Your task to perform on an android device: Open wifi settings Image 0: 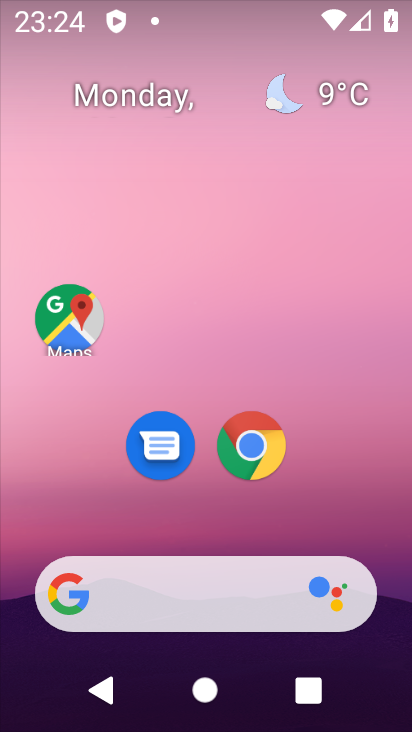
Step 0: drag from (269, 568) to (285, 8)
Your task to perform on an android device: Open wifi settings Image 1: 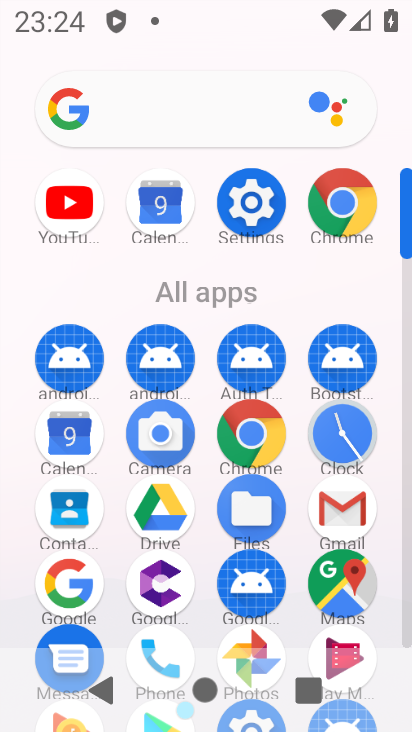
Step 1: click (263, 208)
Your task to perform on an android device: Open wifi settings Image 2: 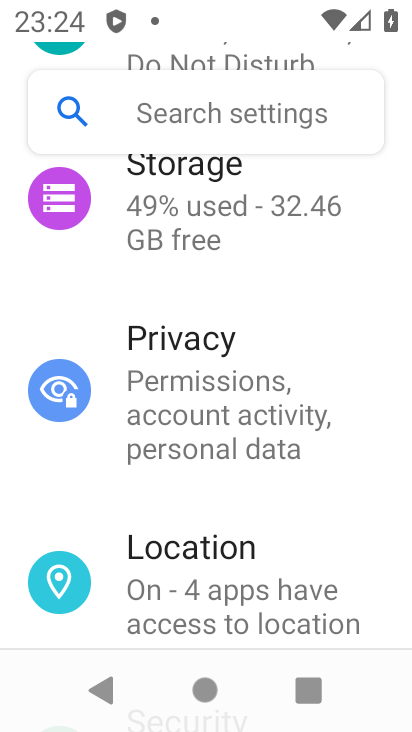
Step 2: drag from (268, 238) to (409, 725)
Your task to perform on an android device: Open wifi settings Image 3: 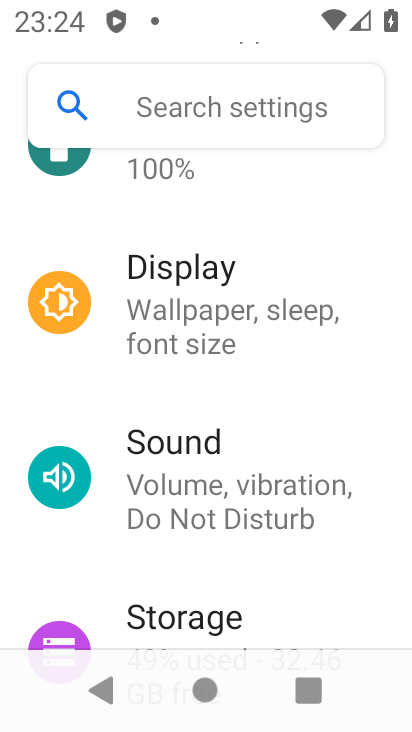
Step 3: drag from (294, 303) to (342, 694)
Your task to perform on an android device: Open wifi settings Image 4: 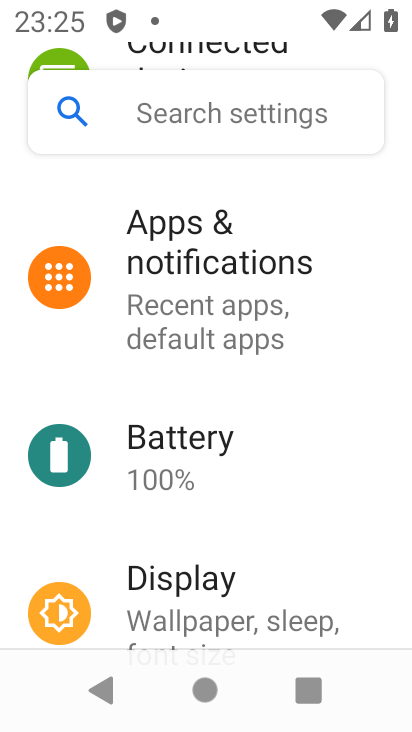
Step 4: drag from (249, 261) to (362, 729)
Your task to perform on an android device: Open wifi settings Image 5: 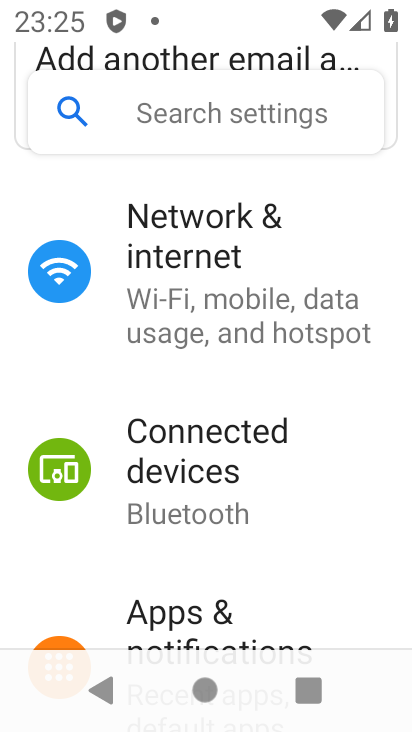
Step 5: drag from (273, 302) to (311, 730)
Your task to perform on an android device: Open wifi settings Image 6: 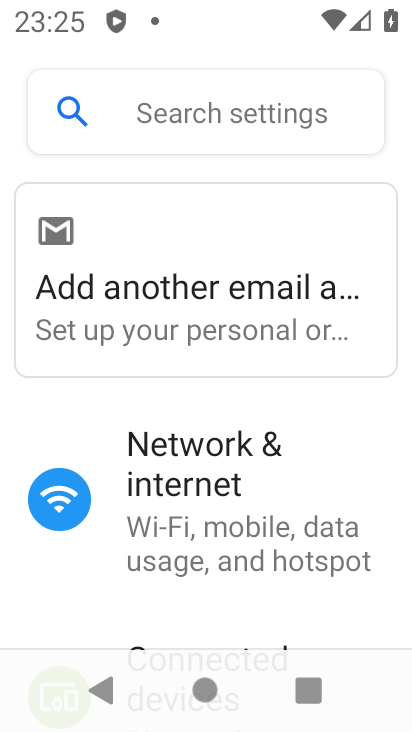
Step 6: click (300, 549)
Your task to perform on an android device: Open wifi settings Image 7: 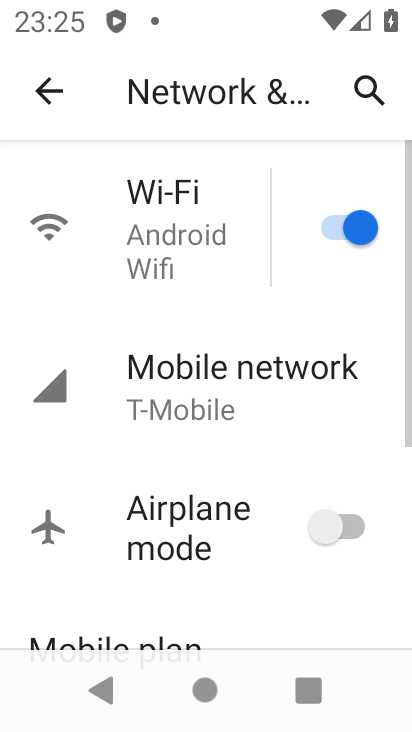
Step 7: click (193, 229)
Your task to perform on an android device: Open wifi settings Image 8: 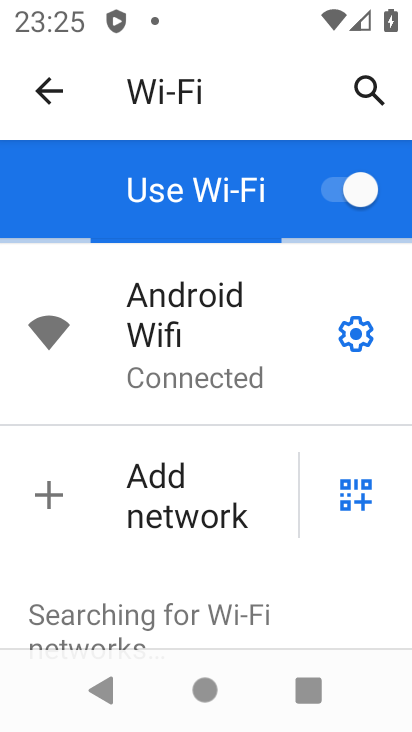
Step 8: task complete